Your task to perform on an android device: turn off data saver in the chrome app Image 0: 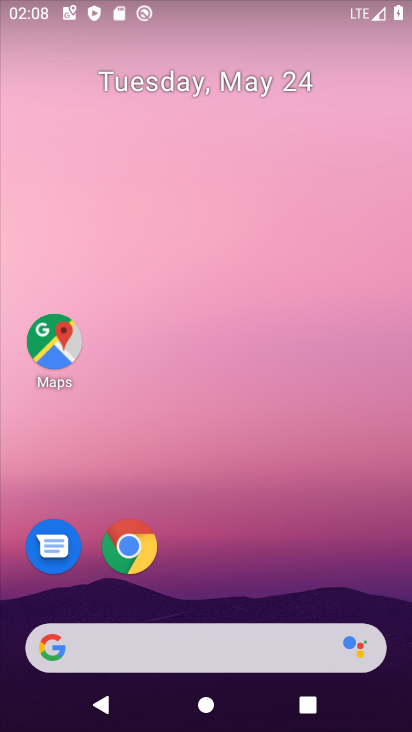
Step 0: drag from (192, 599) to (265, 172)
Your task to perform on an android device: turn off data saver in the chrome app Image 1: 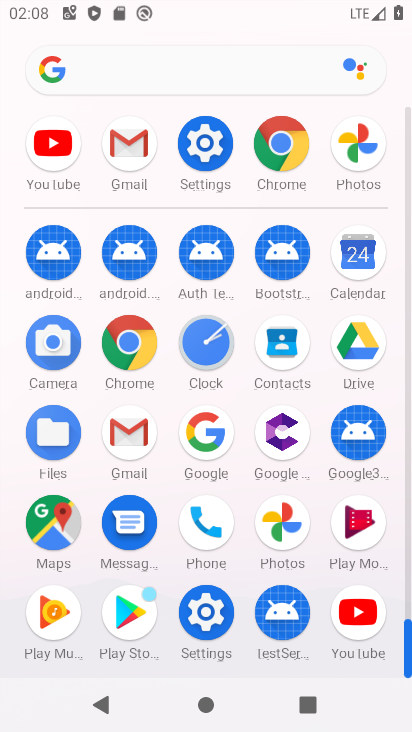
Step 1: click (121, 340)
Your task to perform on an android device: turn off data saver in the chrome app Image 2: 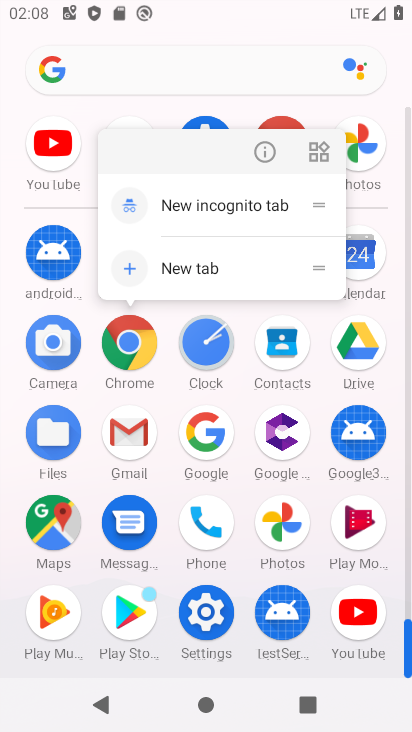
Step 2: click (269, 152)
Your task to perform on an android device: turn off data saver in the chrome app Image 3: 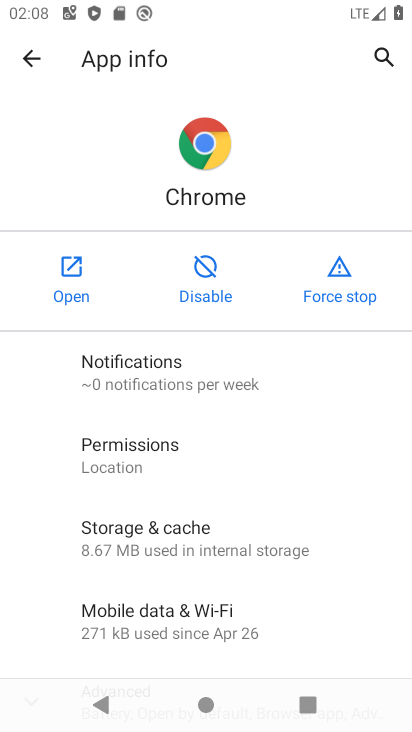
Step 3: click (54, 276)
Your task to perform on an android device: turn off data saver in the chrome app Image 4: 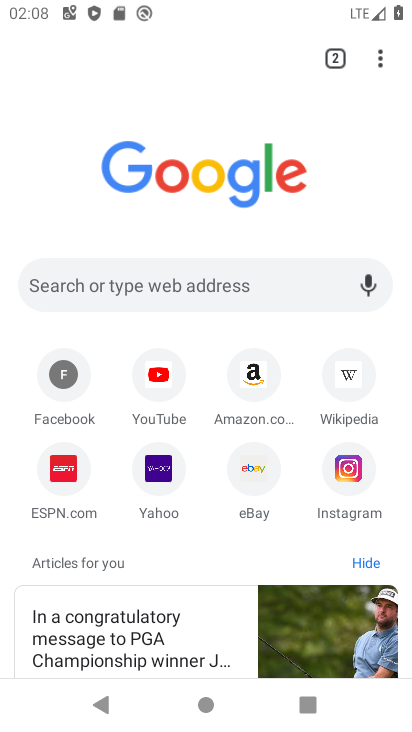
Step 4: click (374, 53)
Your task to perform on an android device: turn off data saver in the chrome app Image 5: 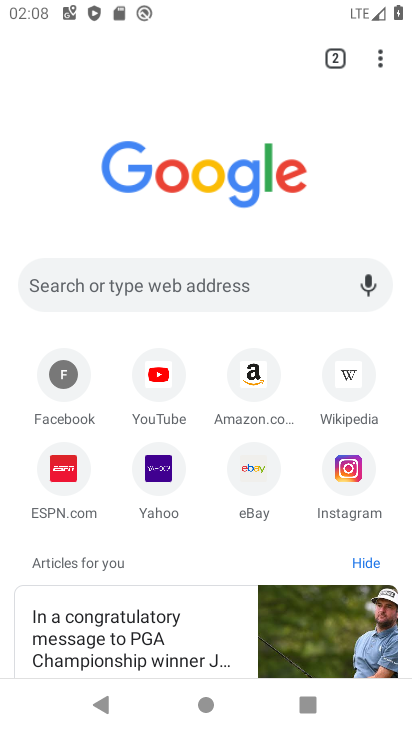
Step 5: click (386, 50)
Your task to perform on an android device: turn off data saver in the chrome app Image 6: 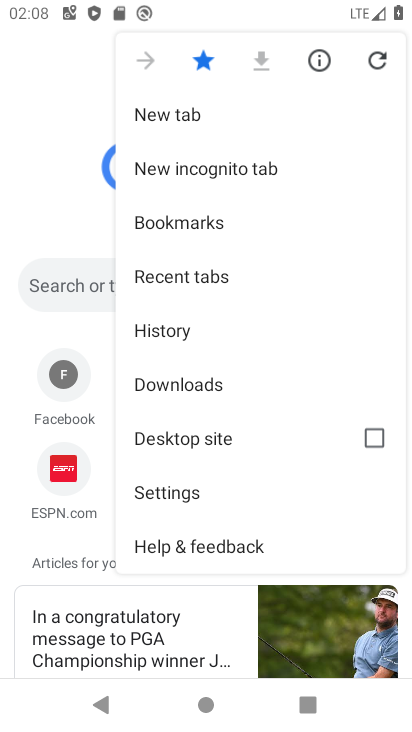
Step 6: click (188, 485)
Your task to perform on an android device: turn off data saver in the chrome app Image 7: 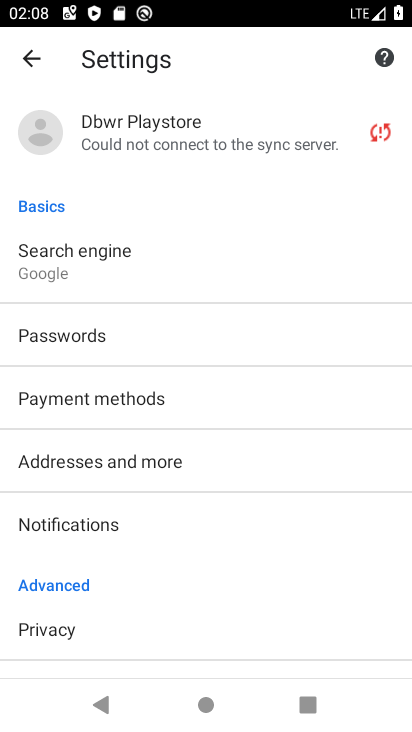
Step 7: drag from (164, 586) to (305, 26)
Your task to perform on an android device: turn off data saver in the chrome app Image 8: 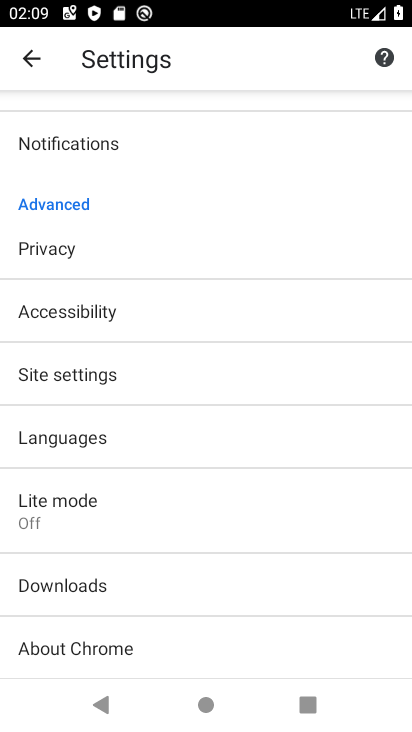
Step 8: drag from (193, 593) to (245, 97)
Your task to perform on an android device: turn off data saver in the chrome app Image 9: 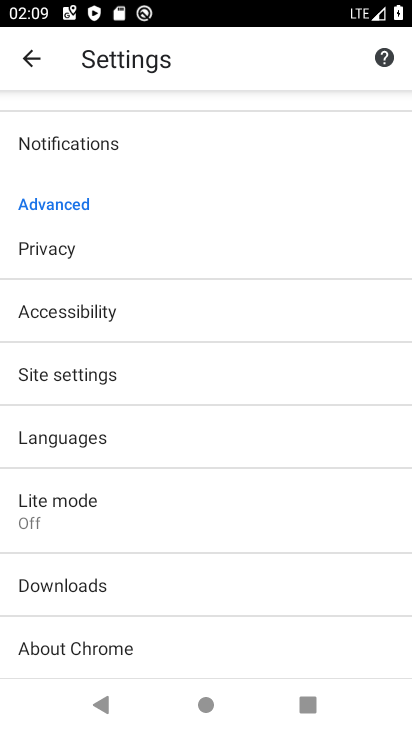
Step 9: drag from (188, 607) to (254, 153)
Your task to perform on an android device: turn off data saver in the chrome app Image 10: 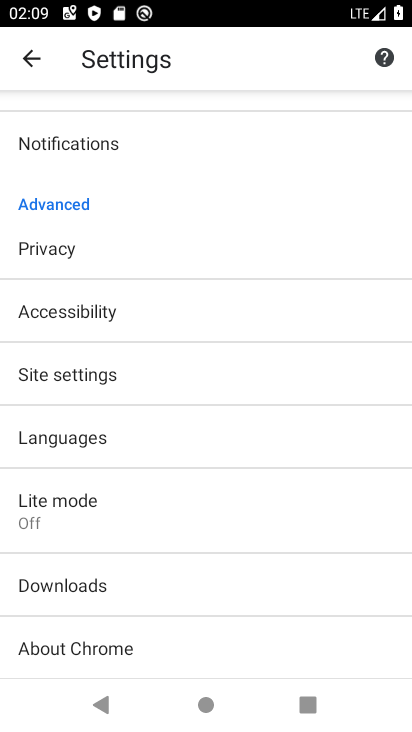
Step 10: click (121, 514)
Your task to perform on an android device: turn off data saver in the chrome app Image 11: 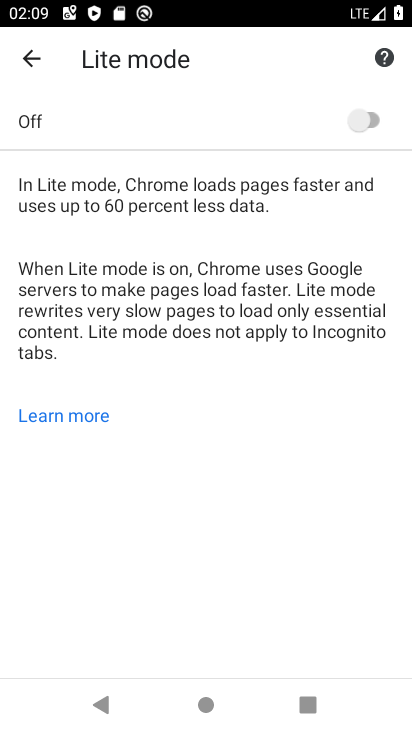
Step 11: task complete